Your task to perform on an android device: uninstall "Pinterest" Image 0: 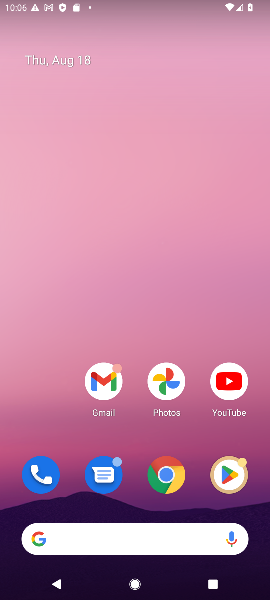
Step 0: click (228, 467)
Your task to perform on an android device: uninstall "Pinterest" Image 1: 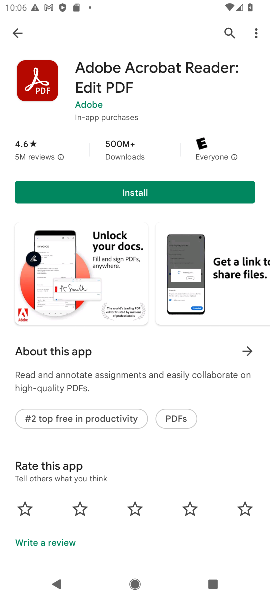
Step 1: click (18, 33)
Your task to perform on an android device: uninstall "Pinterest" Image 2: 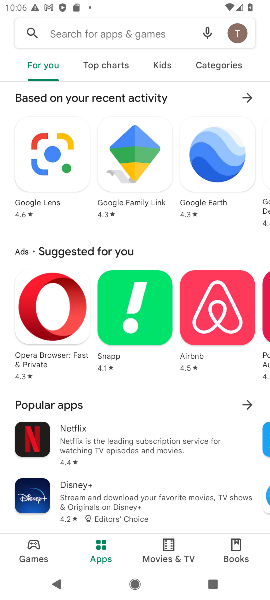
Step 2: click (50, 31)
Your task to perform on an android device: uninstall "Pinterest" Image 3: 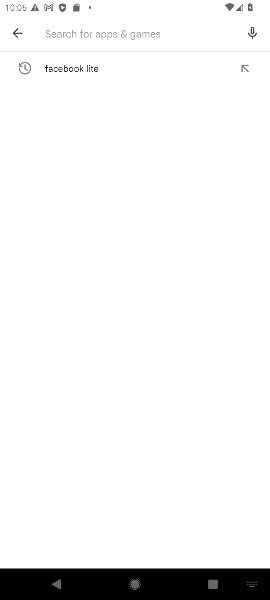
Step 3: type "Pinterest"
Your task to perform on an android device: uninstall "Pinterest" Image 4: 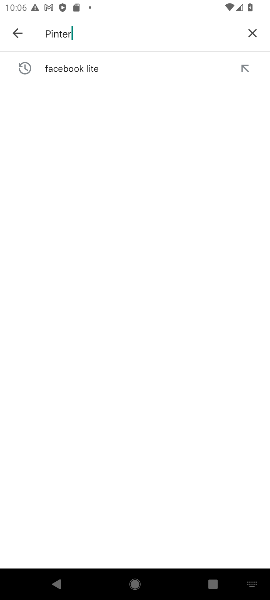
Step 4: type ""
Your task to perform on an android device: uninstall "Pinterest" Image 5: 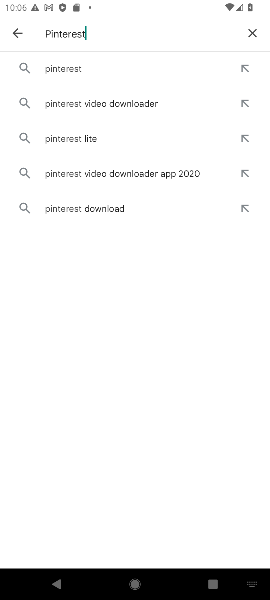
Step 5: click (39, 65)
Your task to perform on an android device: uninstall "Pinterest" Image 6: 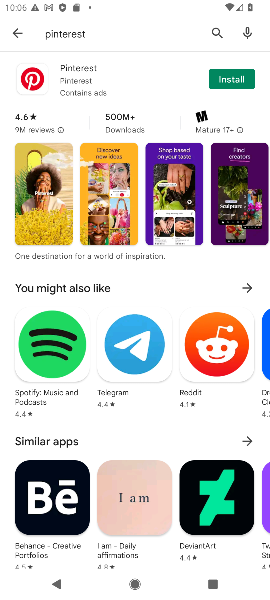
Step 6: task complete